Your task to perform on an android device: toggle improve location accuracy Image 0: 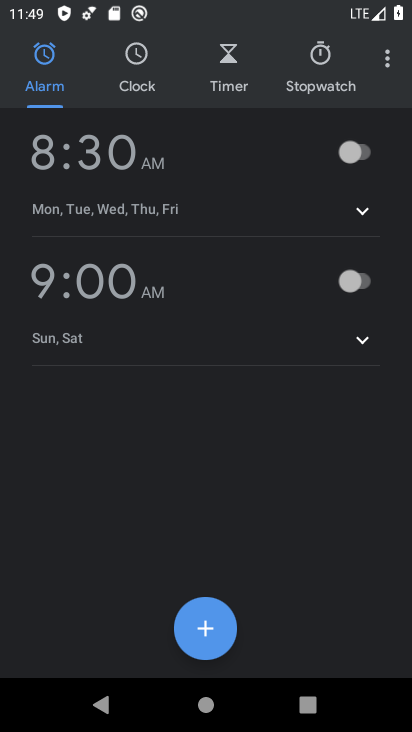
Step 0: click (284, 556)
Your task to perform on an android device: toggle improve location accuracy Image 1: 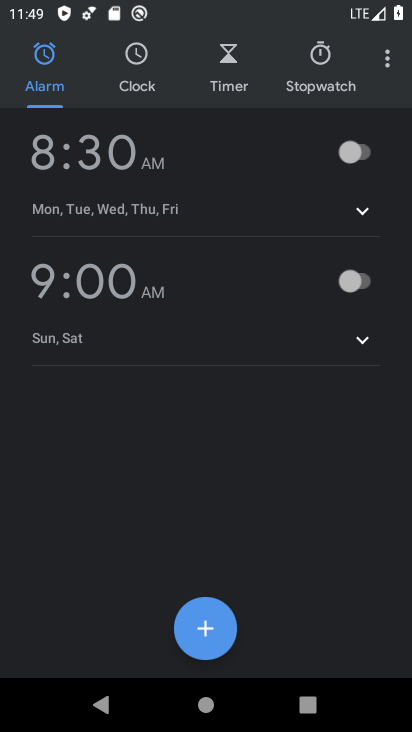
Step 1: press home button
Your task to perform on an android device: toggle improve location accuracy Image 2: 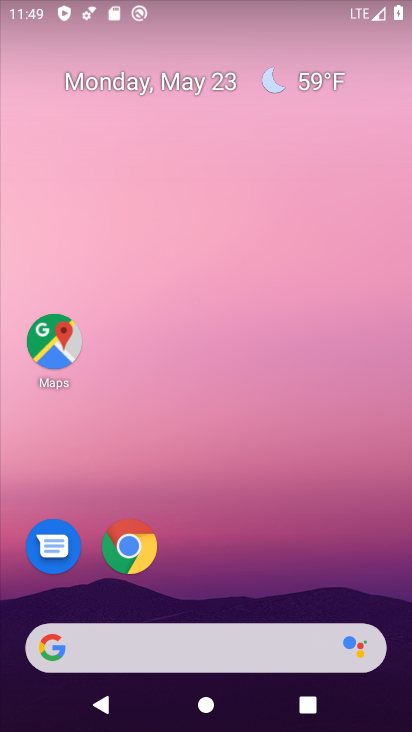
Step 2: drag from (202, 604) to (284, 116)
Your task to perform on an android device: toggle improve location accuracy Image 3: 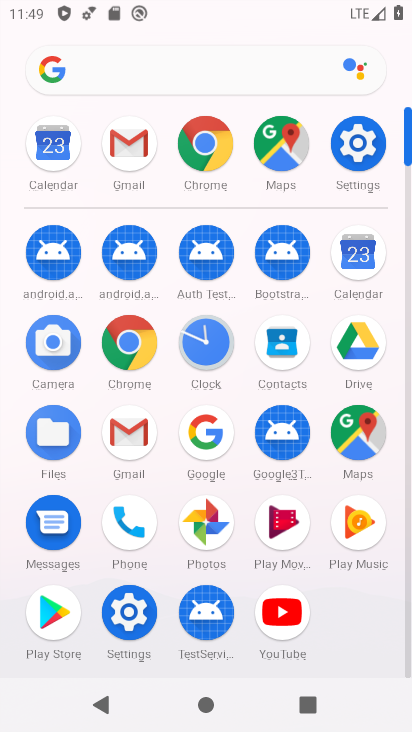
Step 3: click (363, 158)
Your task to perform on an android device: toggle improve location accuracy Image 4: 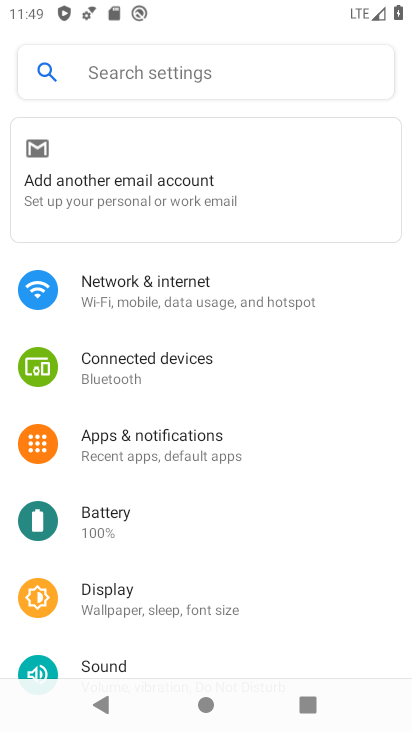
Step 4: drag from (153, 624) to (353, 131)
Your task to perform on an android device: toggle improve location accuracy Image 5: 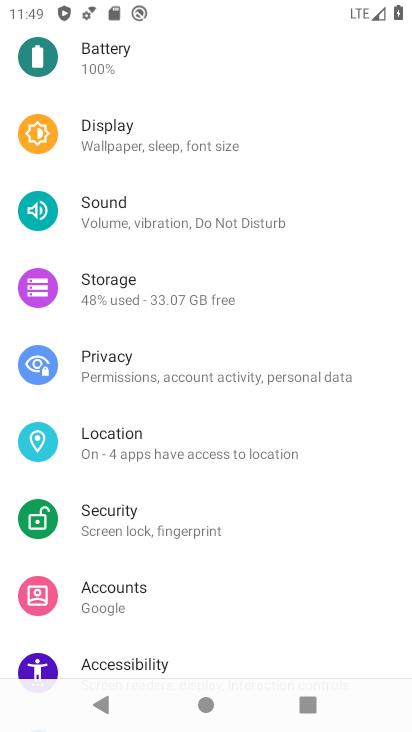
Step 5: drag from (174, 618) to (315, 129)
Your task to perform on an android device: toggle improve location accuracy Image 6: 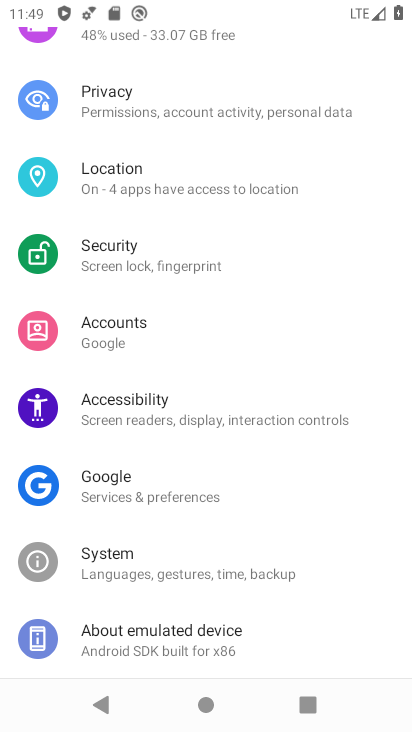
Step 6: click (171, 166)
Your task to perform on an android device: toggle improve location accuracy Image 7: 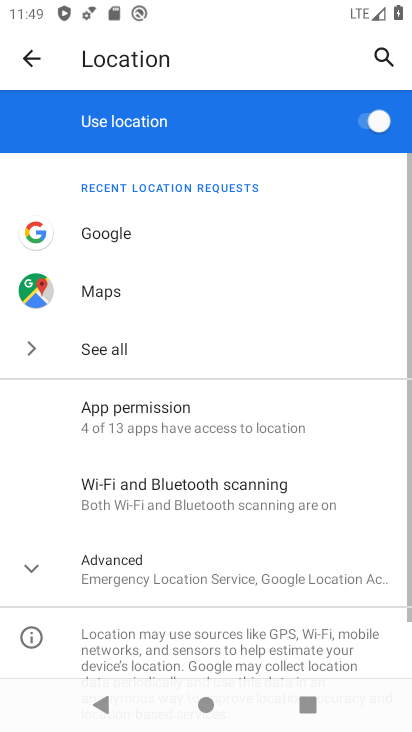
Step 7: click (136, 572)
Your task to perform on an android device: toggle improve location accuracy Image 8: 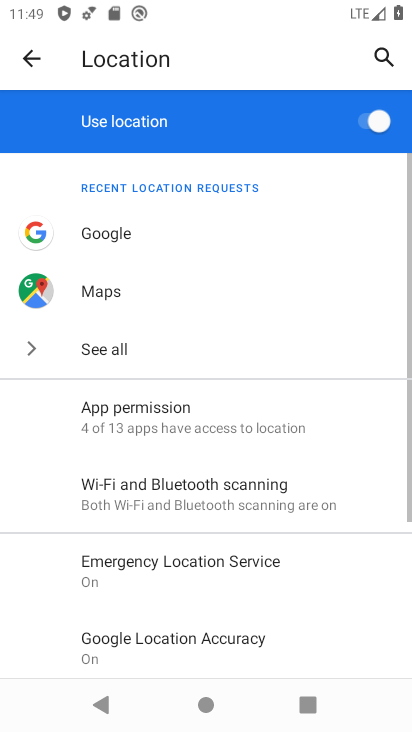
Step 8: click (195, 654)
Your task to perform on an android device: toggle improve location accuracy Image 9: 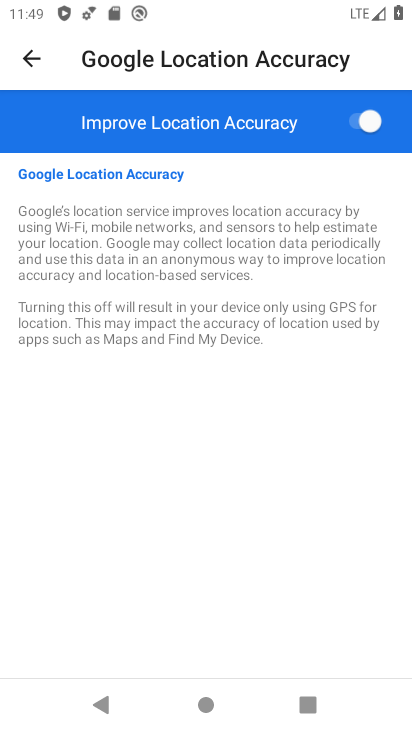
Step 9: drag from (269, 607) to (385, 261)
Your task to perform on an android device: toggle improve location accuracy Image 10: 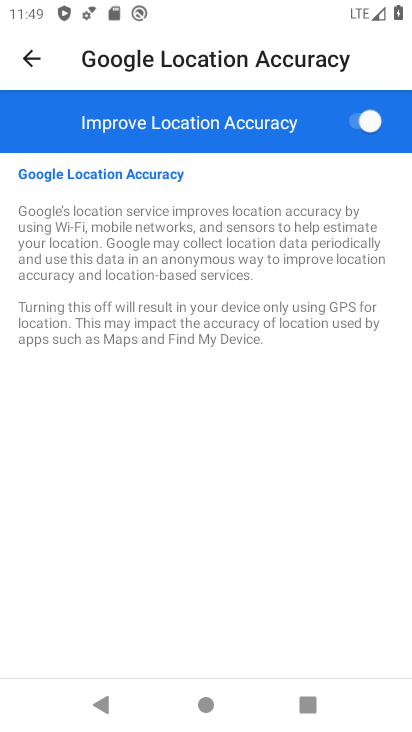
Step 10: click (354, 127)
Your task to perform on an android device: toggle improve location accuracy Image 11: 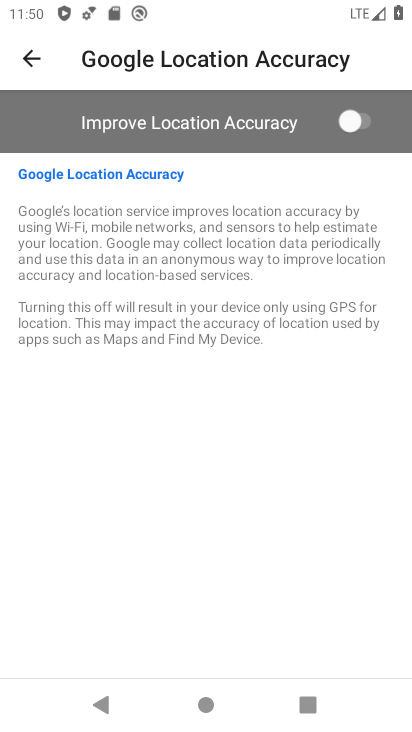
Step 11: task complete